Your task to perform on an android device: change the clock style Image 0: 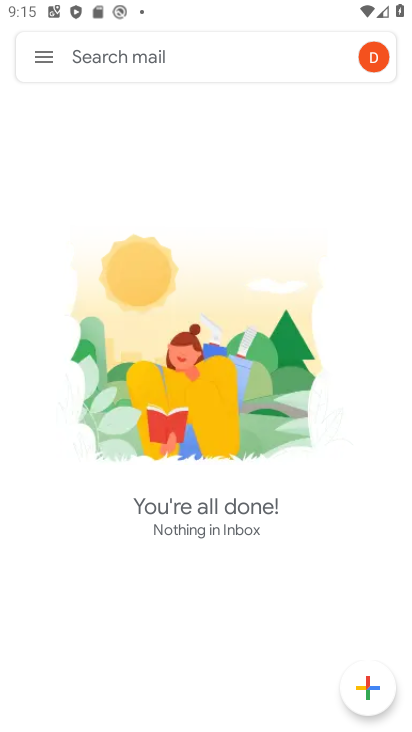
Step 0: press home button
Your task to perform on an android device: change the clock style Image 1: 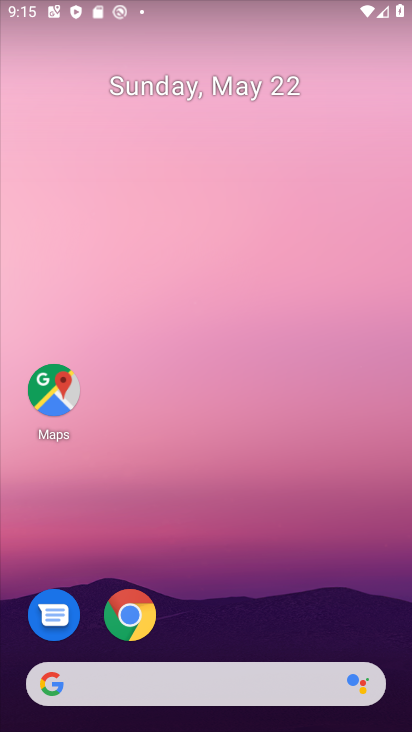
Step 1: drag from (247, 617) to (289, 207)
Your task to perform on an android device: change the clock style Image 2: 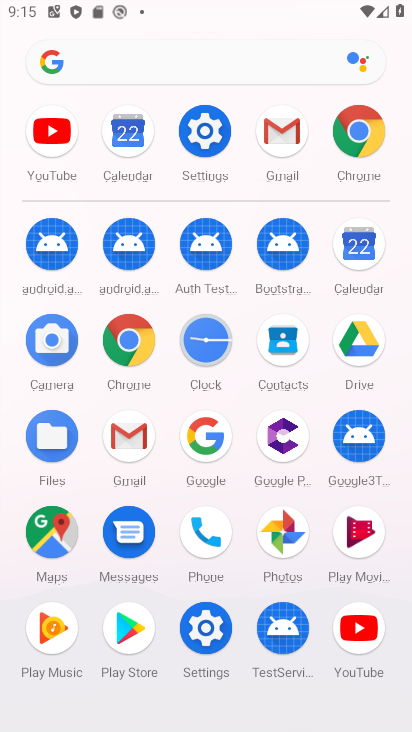
Step 2: click (201, 344)
Your task to perform on an android device: change the clock style Image 3: 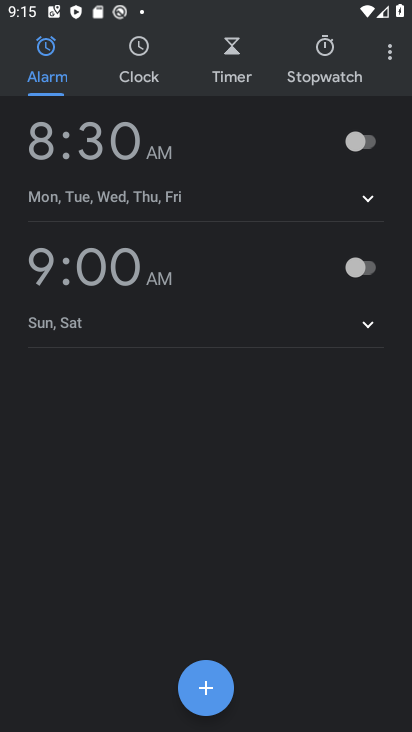
Step 3: click (381, 49)
Your task to perform on an android device: change the clock style Image 4: 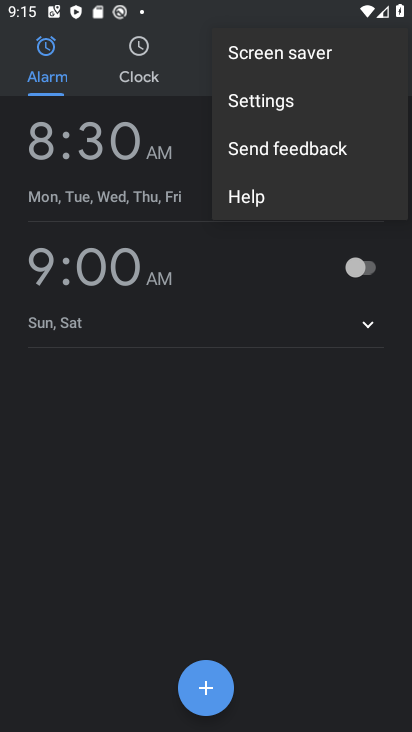
Step 4: click (280, 105)
Your task to perform on an android device: change the clock style Image 5: 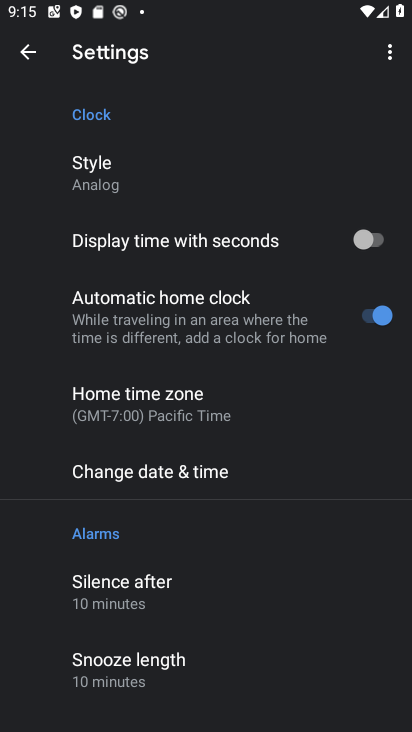
Step 5: click (131, 178)
Your task to perform on an android device: change the clock style Image 6: 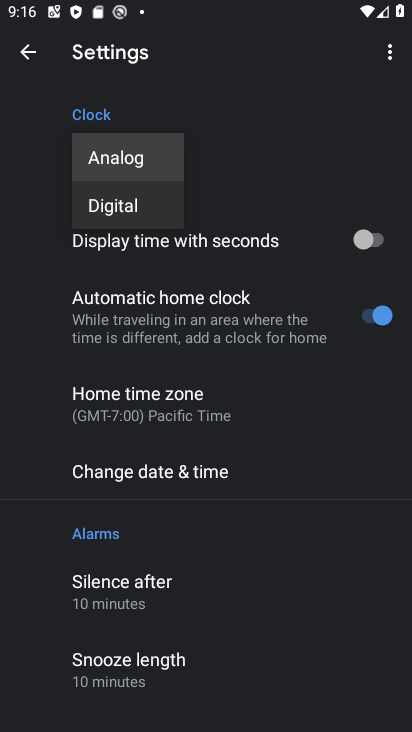
Step 6: click (124, 208)
Your task to perform on an android device: change the clock style Image 7: 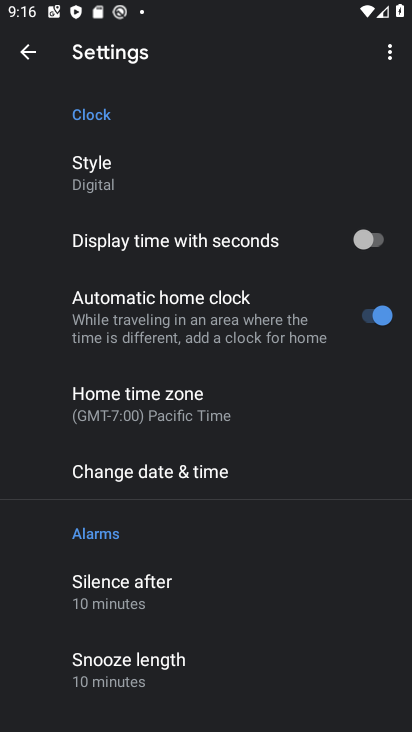
Step 7: task complete